Your task to perform on an android device: star an email in the gmail app Image 0: 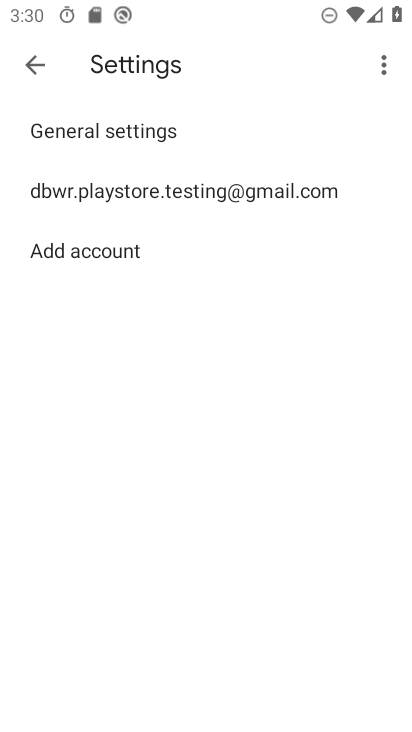
Step 0: click (30, 64)
Your task to perform on an android device: star an email in the gmail app Image 1: 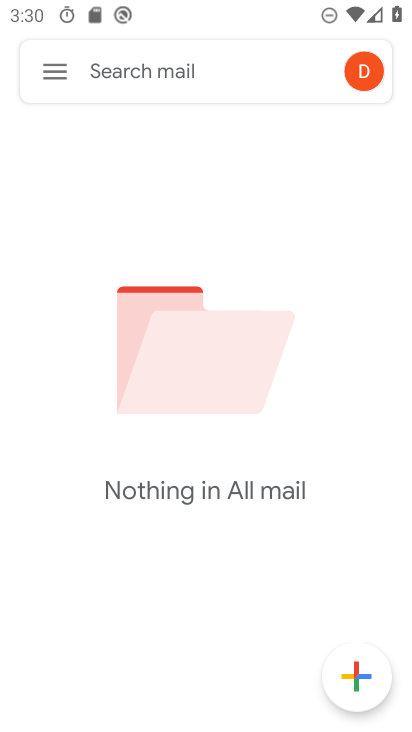
Step 1: click (41, 75)
Your task to perform on an android device: star an email in the gmail app Image 2: 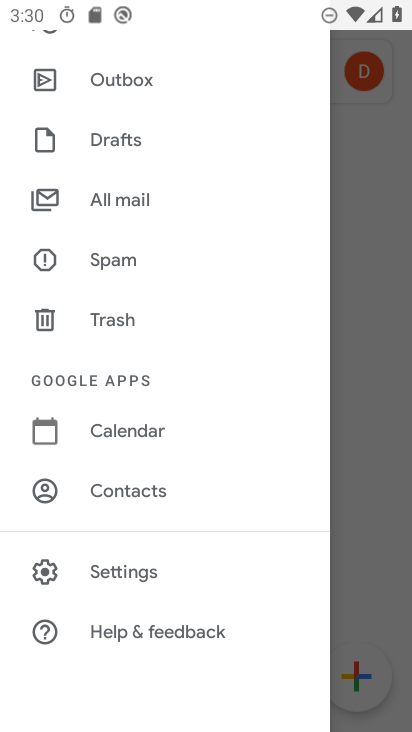
Step 2: task complete